Your task to perform on an android device: uninstall "Pluto TV - Live TV and Movies" Image 0: 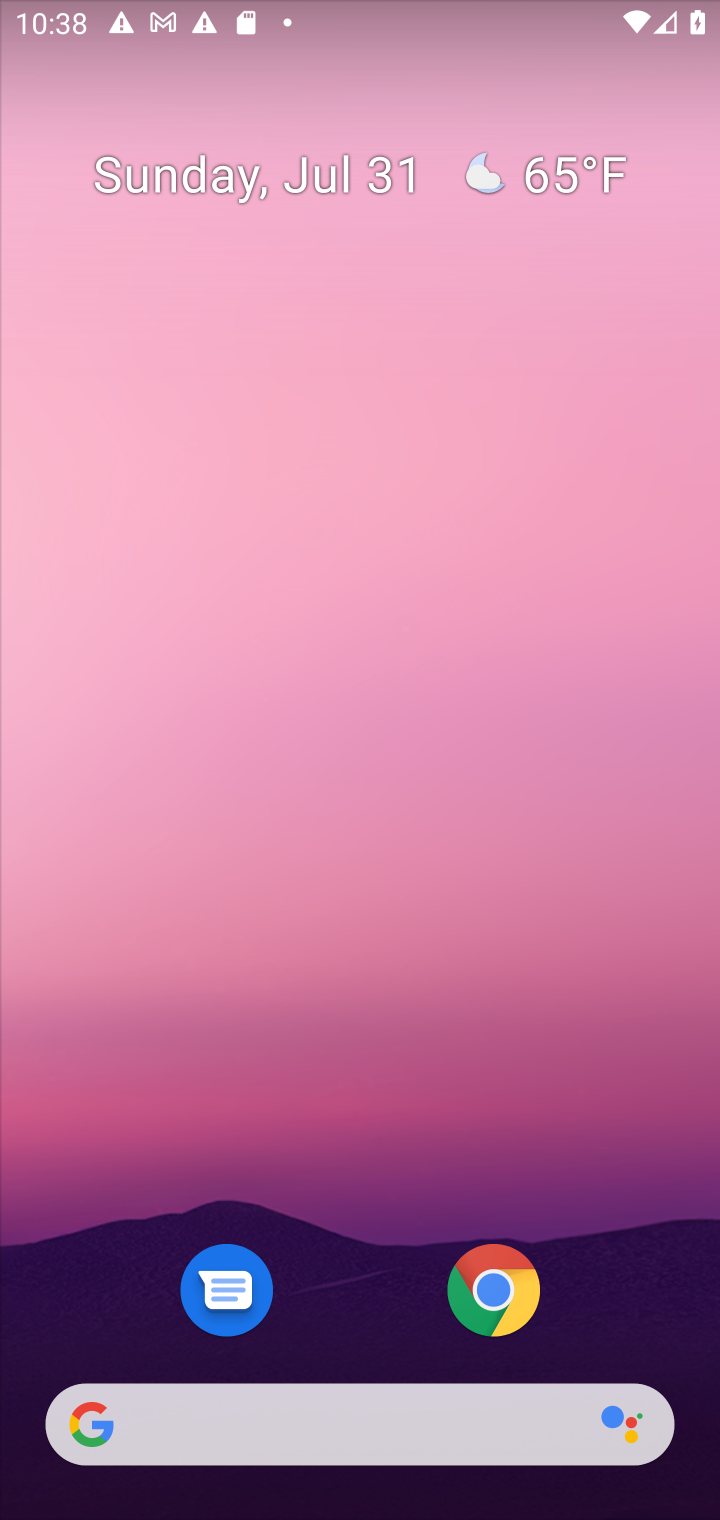
Step 0: press home button
Your task to perform on an android device: uninstall "Pluto TV - Live TV and Movies" Image 1: 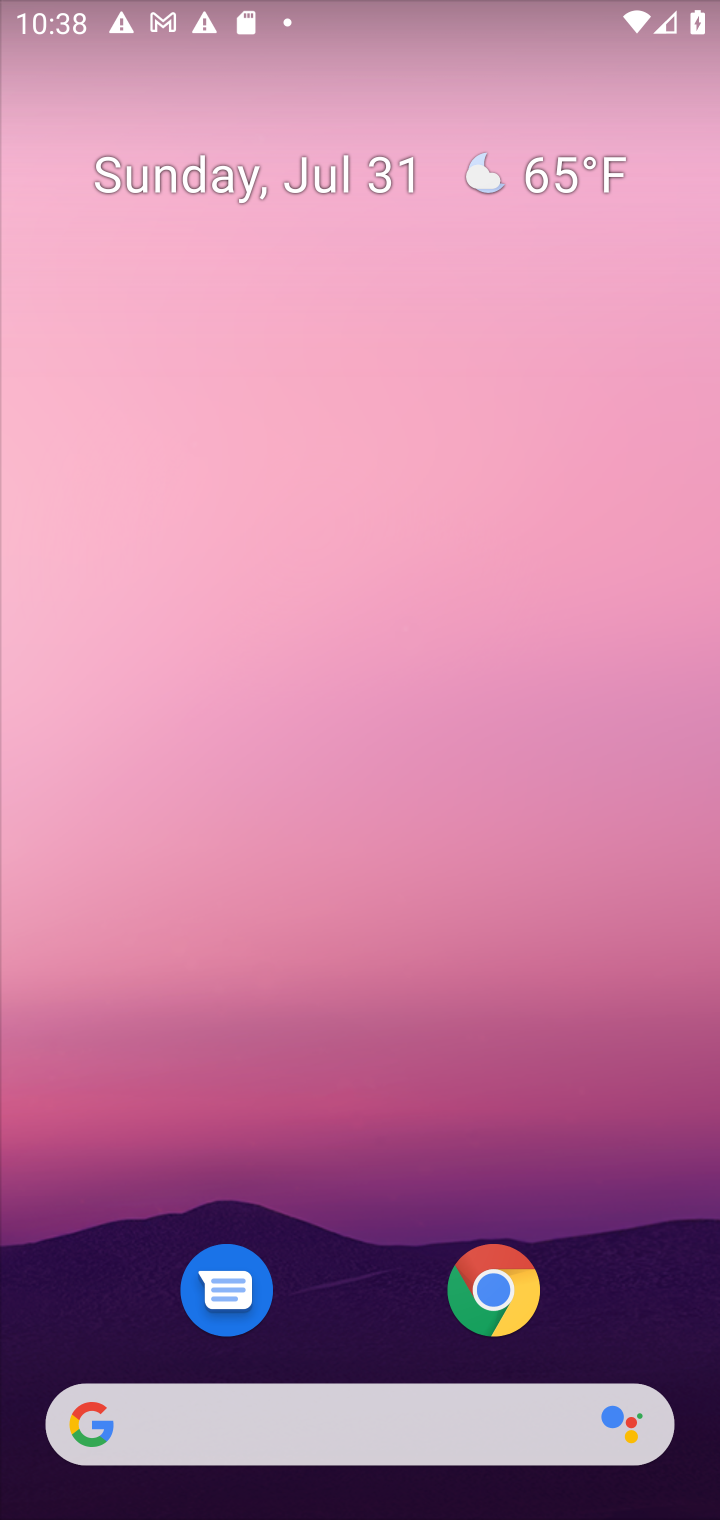
Step 1: drag from (620, 1318) to (618, 84)
Your task to perform on an android device: uninstall "Pluto TV - Live TV and Movies" Image 2: 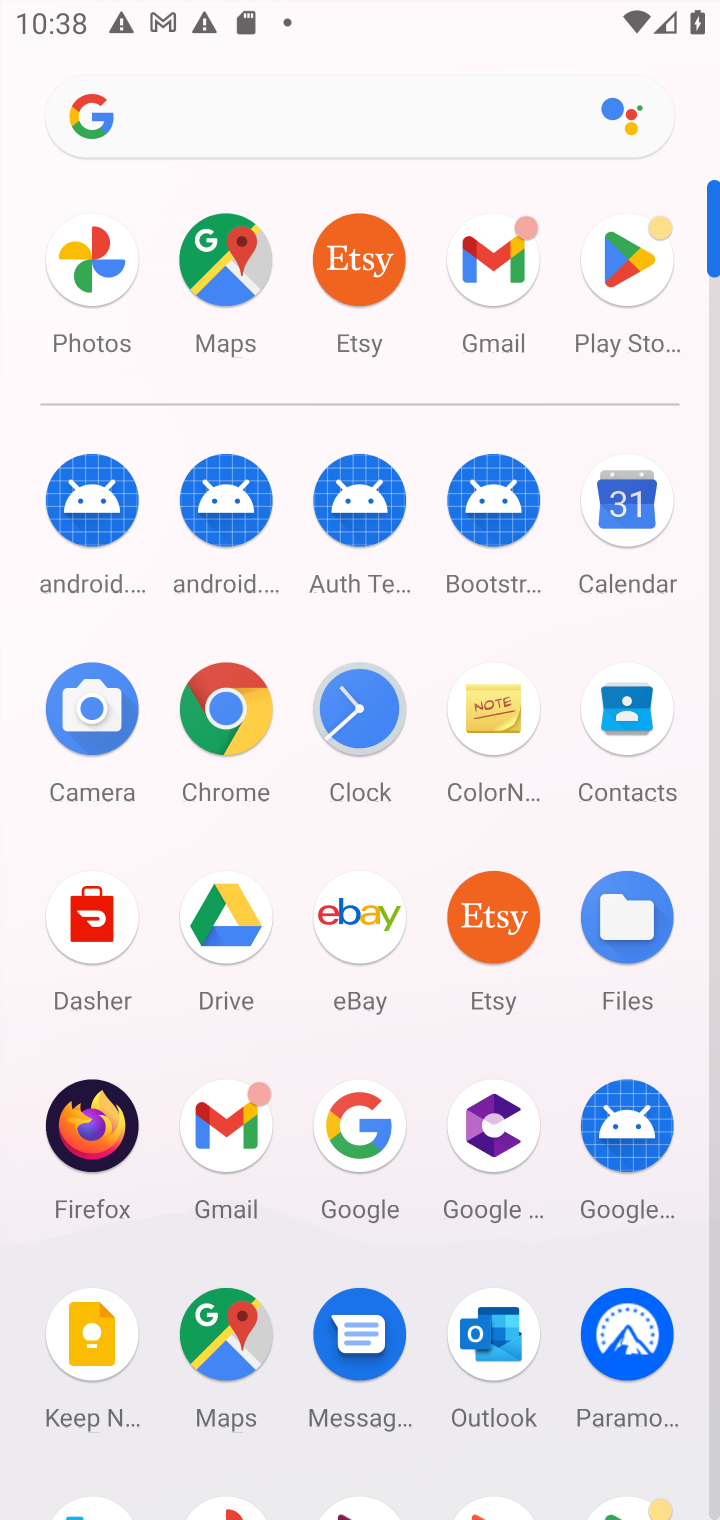
Step 2: click (619, 267)
Your task to perform on an android device: uninstall "Pluto TV - Live TV and Movies" Image 3: 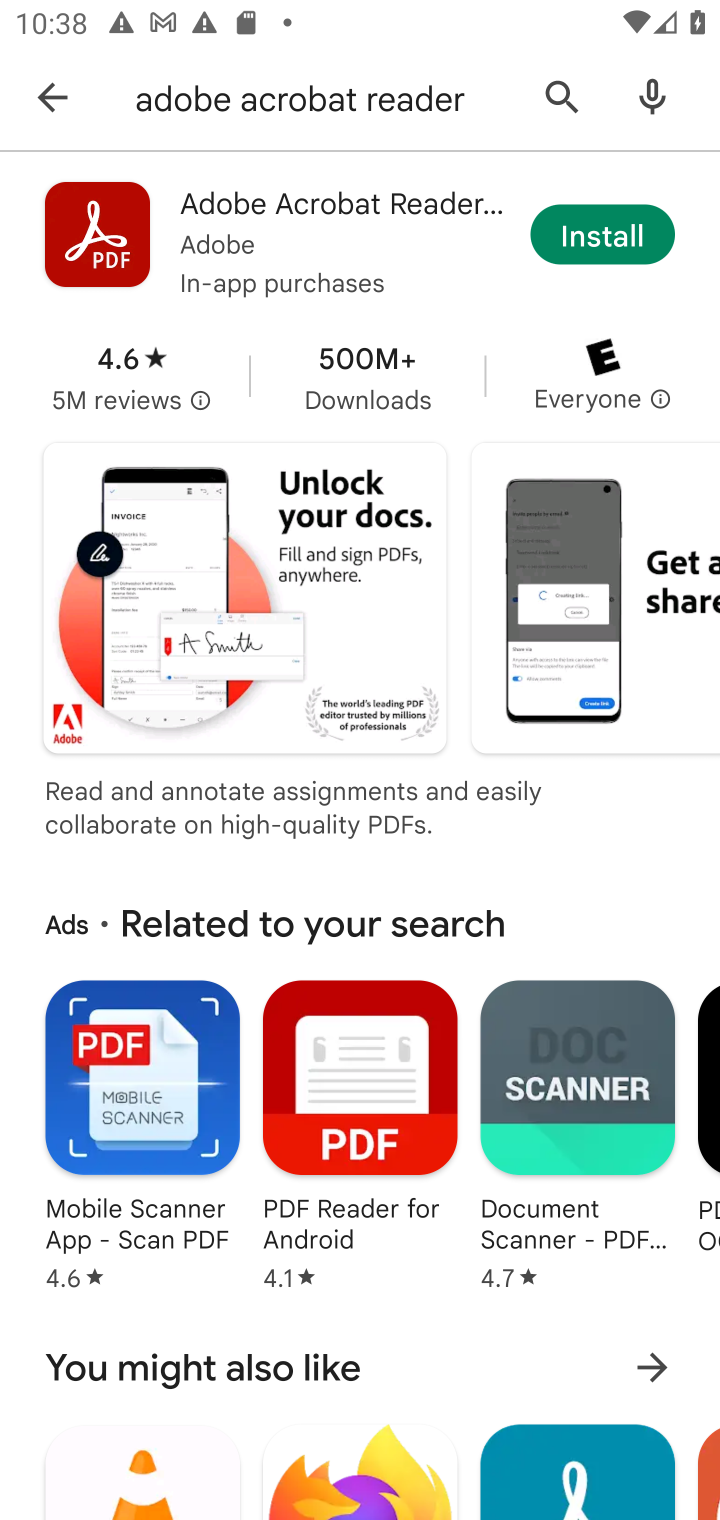
Step 3: click (572, 82)
Your task to perform on an android device: uninstall "Pluto TV - Live TV and Movies" Image 4: 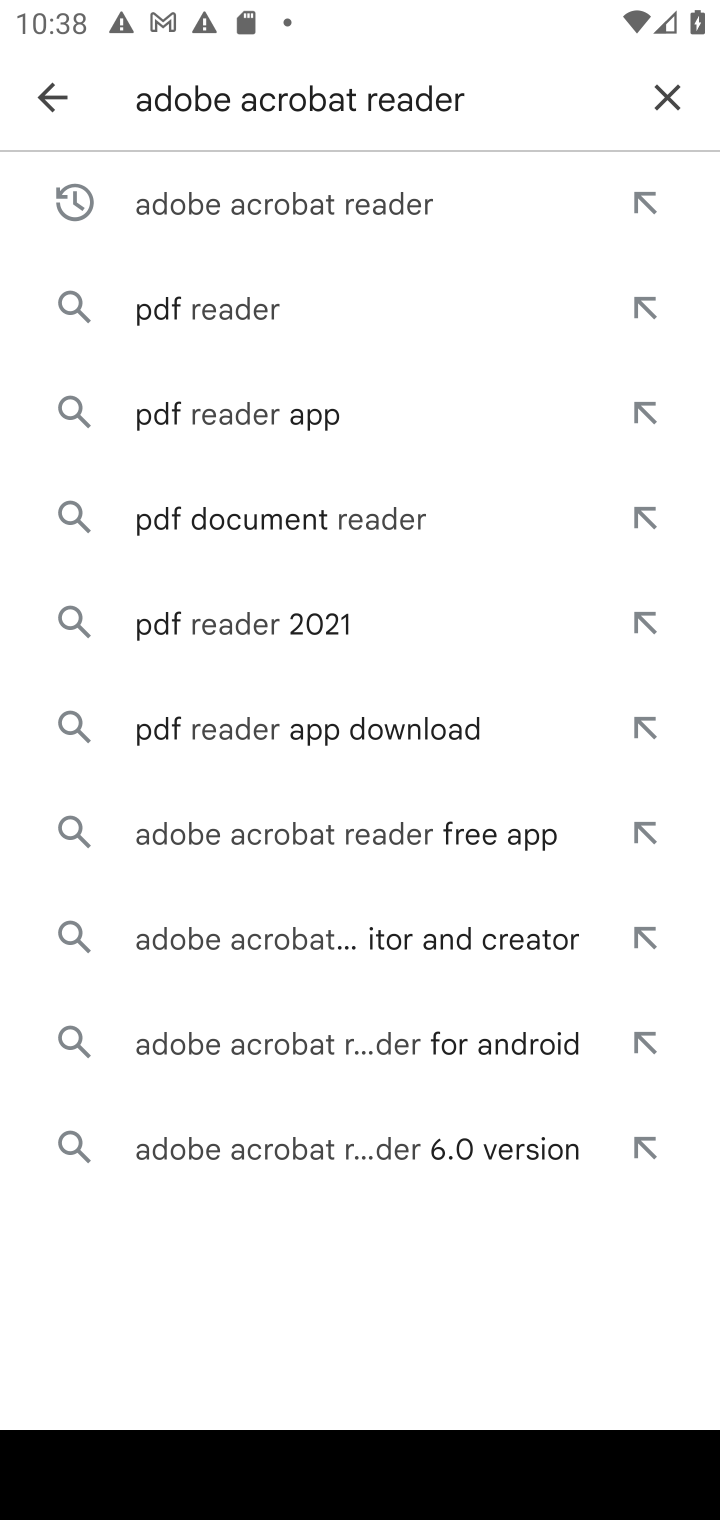
Step 4: click (673, 102)
Your task to perform on an android device: uninstall "Pluto TV - Live TV and Movies" Image 5: 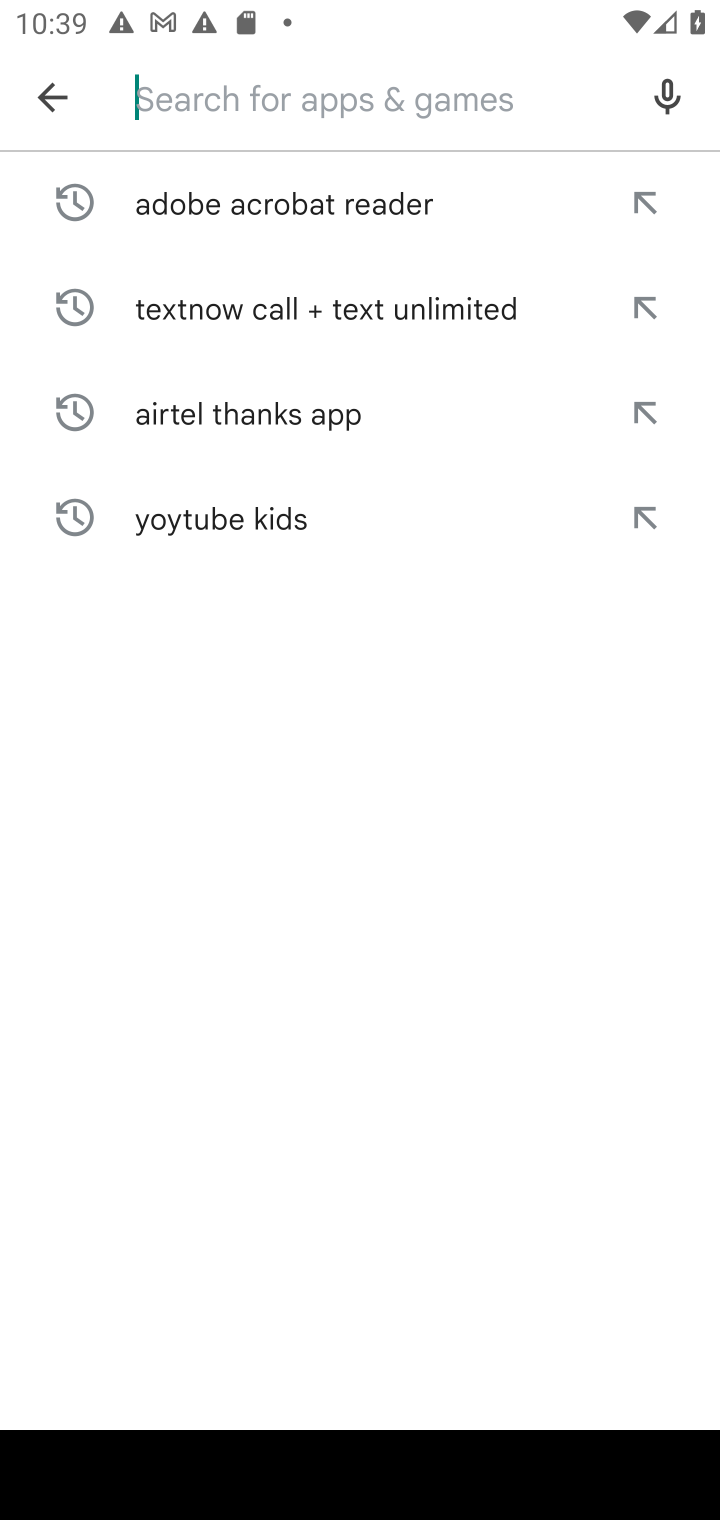
Step 5: type "Pluto TV - Live TV and Movies"
Your task to perform on an android device: uninstall "Pluto TV - Live TV and Movies" Image 6: 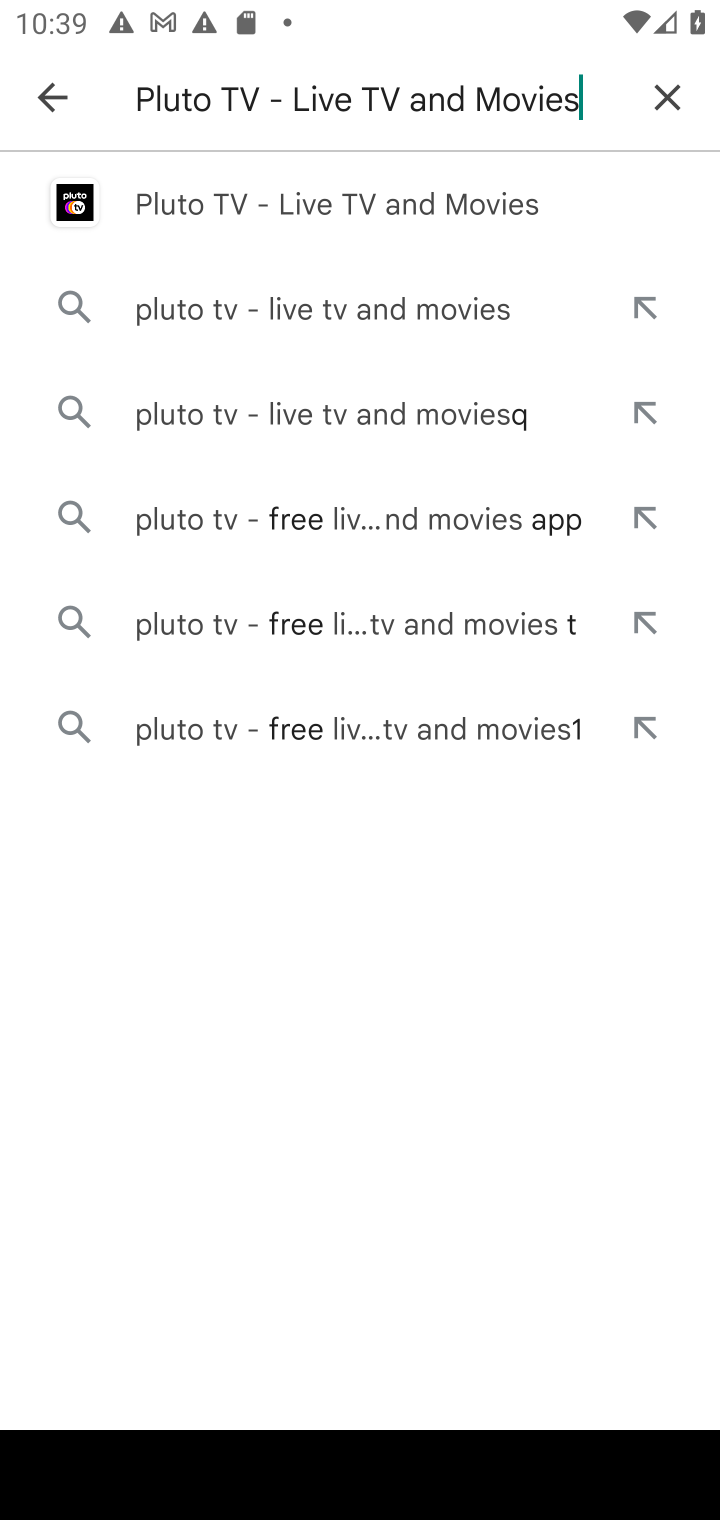
Step 6: click (449, 197)
Your task to perform on an android device: uninstall "Pluto TV - Live TV and Movies" Image 7: 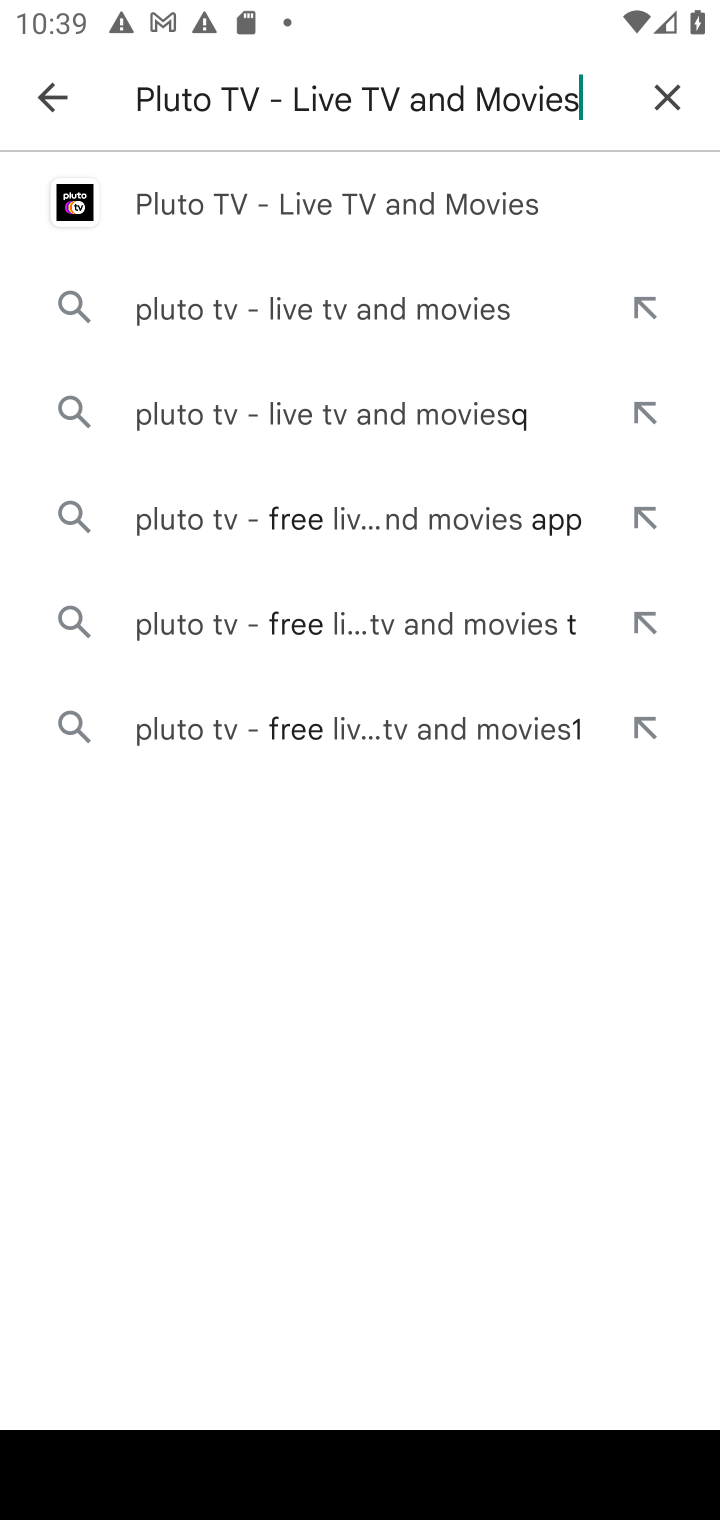
Step 7: click (449, 197)
Your task to perform on an android device: uninstall "Pluto TV - Live TV and Movies" Image 8: 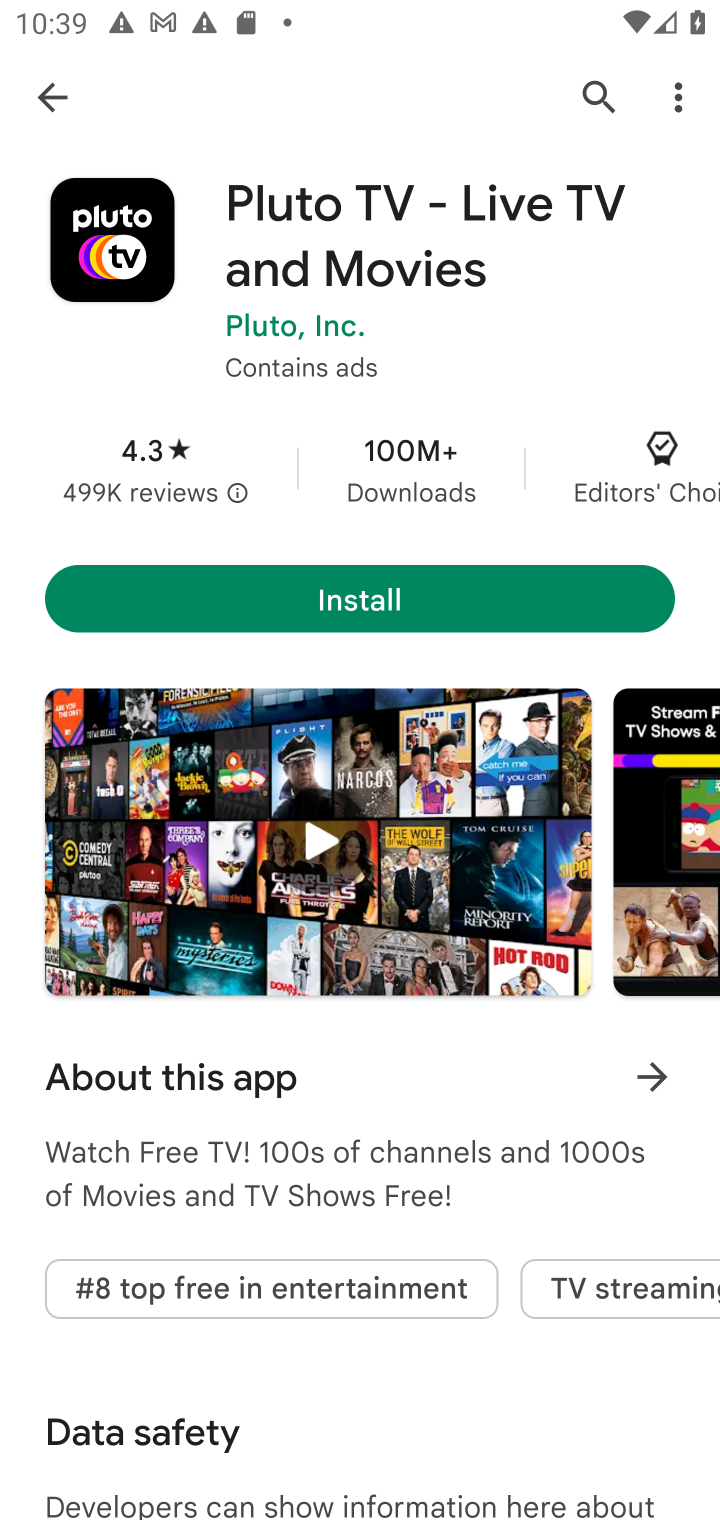
Step 8: task complete